Your task to perform on an android device: empty trash in google photos Image 0: 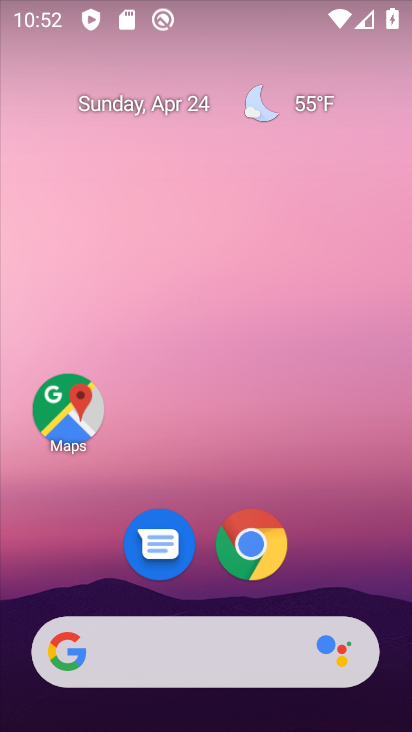
Step 0: drag from (308, 363) to (299, 85)
Your task to perform on an android device: empty trash in google photos Image 1: 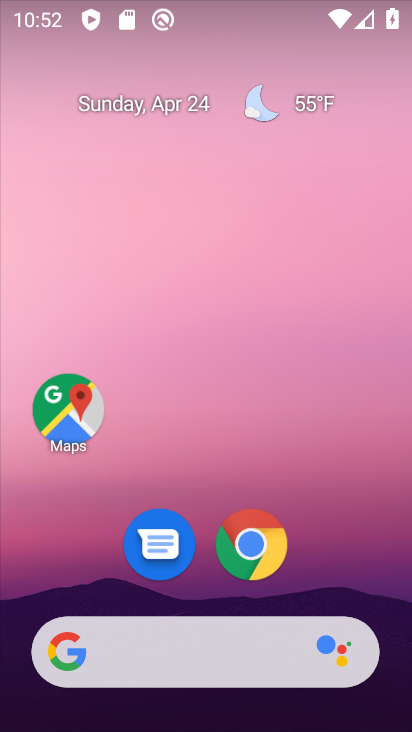
Step 1: drag from (325, 527) to (240, 76)
Your task to perform on an android device: empty trash in google photos Image 2: 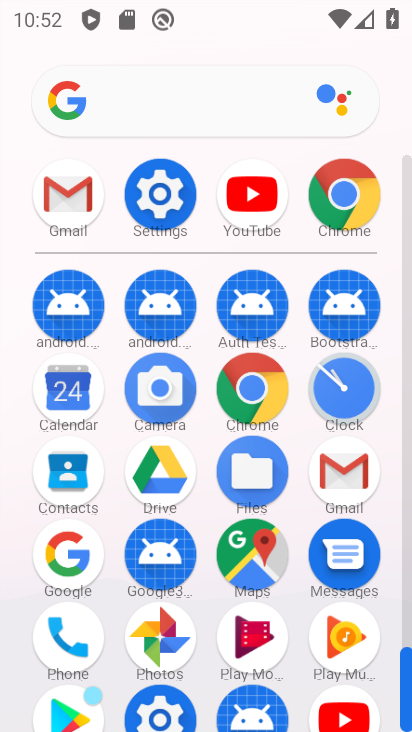
Step 2: click (158, 619)
Your task to perform on an android device: empty trash in google photos Image 3: 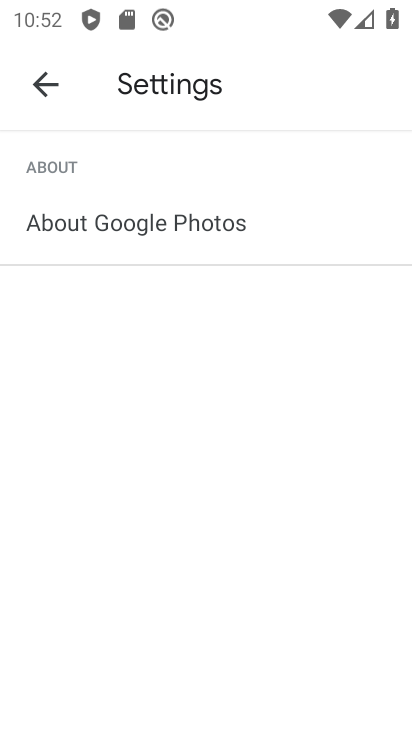
Step 3: press back button
Your task to perform on an android device: empty trash in google photos Image 4: 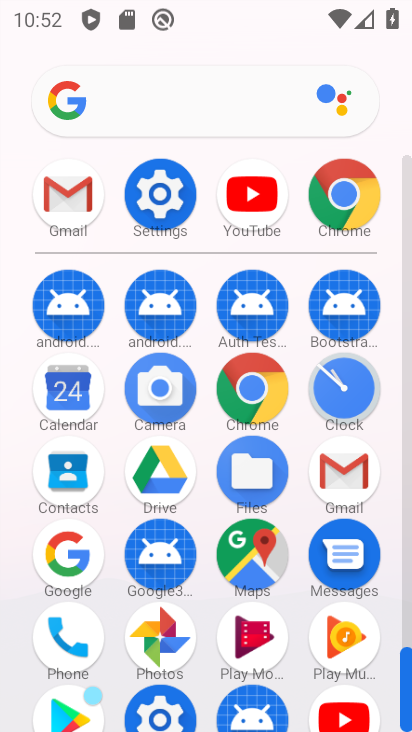
Step 4: click (167, 644)
Your task to perform on an android device: empty trash in google photos Image 5: 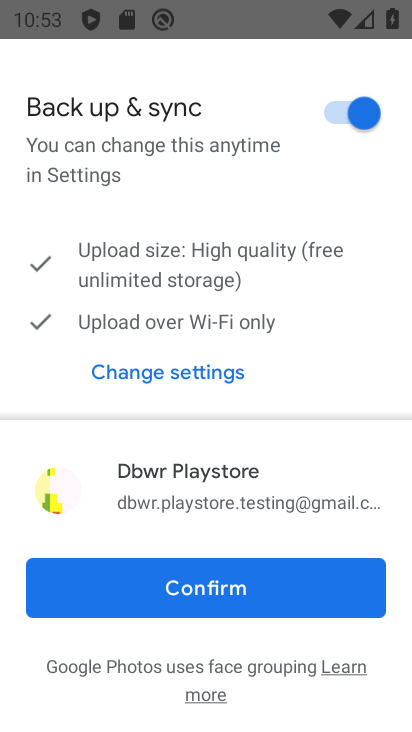
Step 5: click (220, 594)
Your task to perform on an android device: empty trash in google photos Image 6: 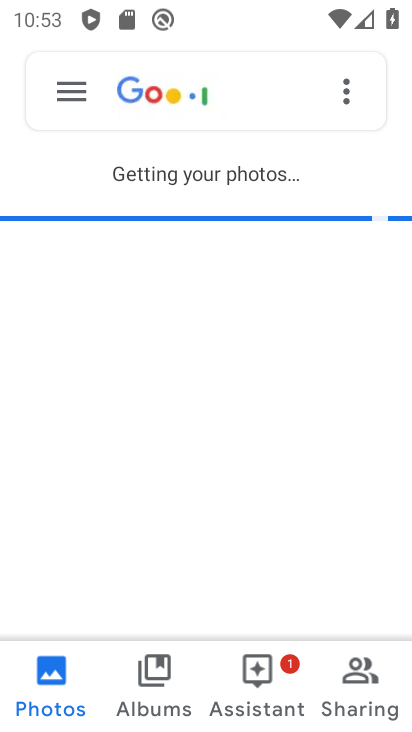
Step 6: click (69, 93)
Your task to perform on an android device: empty trash in google photos Image 7: 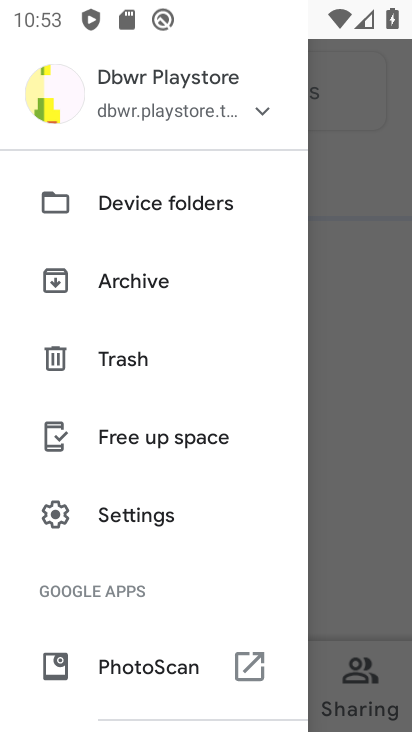
Step 7: click (121, 349)
Your task to perform on an android device: empty trash in google photos Image 8: 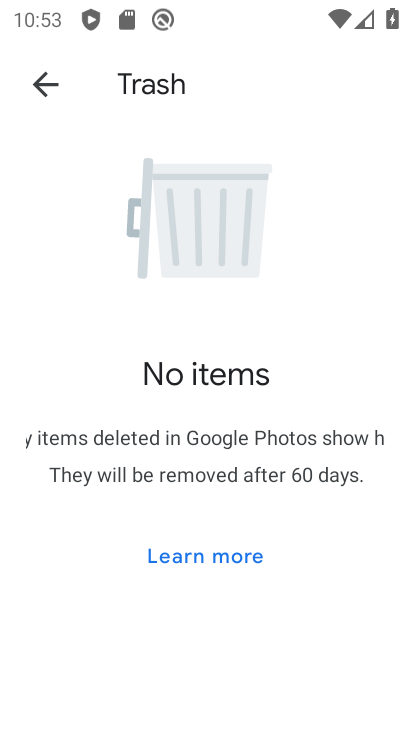
Step 8: task complete